Your task to perform on an android device: turn off location Image 0: 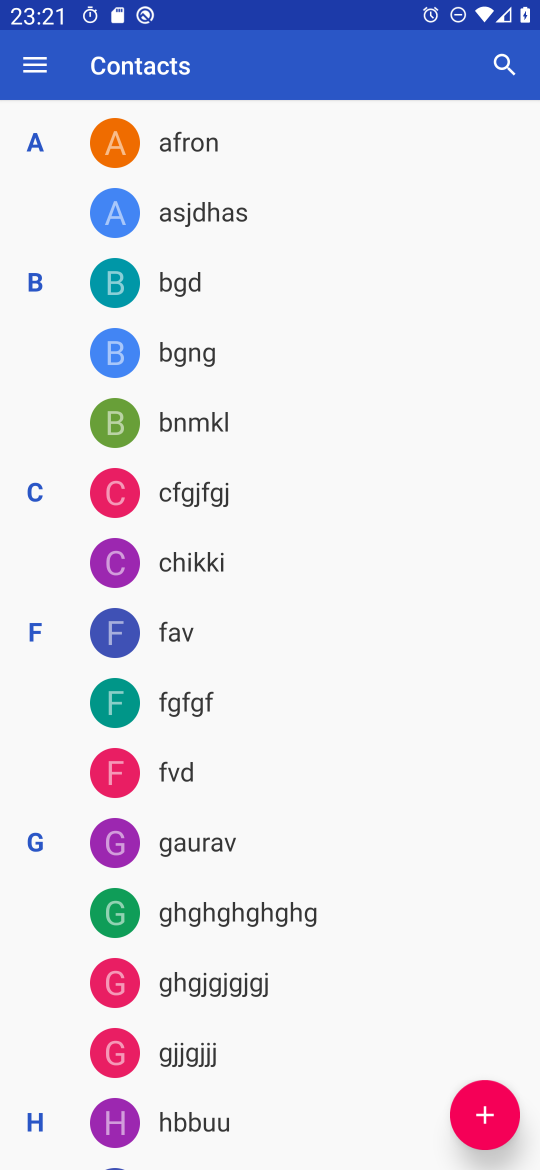
Step 0: press back button
Your task to perform on an android device: turn off location Image 1: 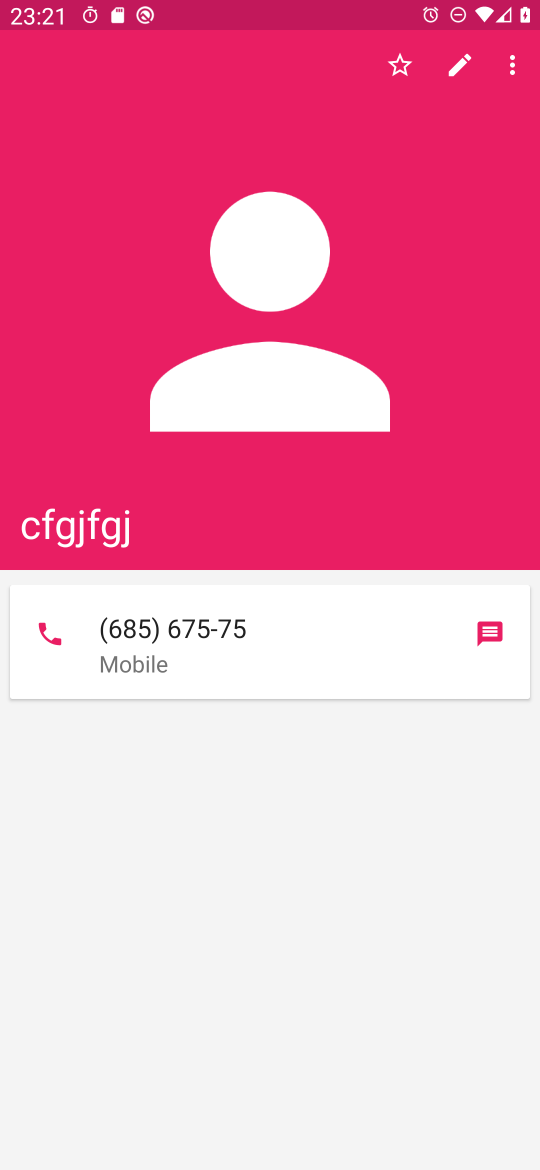
Step 1: press home button
Your task to perform on an android device: turn off location Image 2: 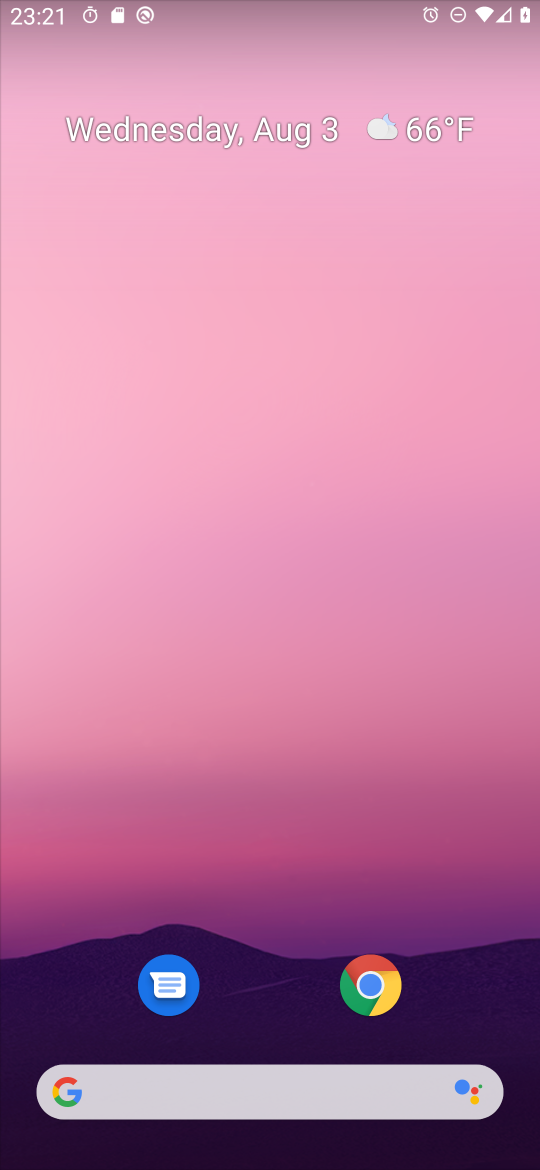
Step 2: drag from (275, 1029) to (301, 245)
Your task to perform on an android device: turn off location Image 3: 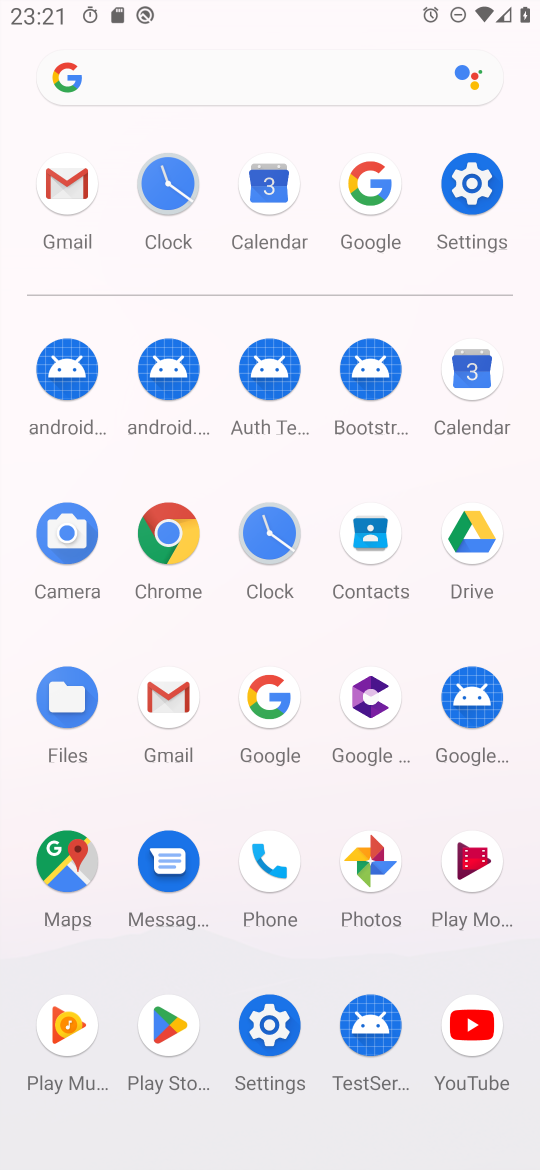
Step 3: click (480, 187)
Your task to perform on an android device: turn off location Image 4: 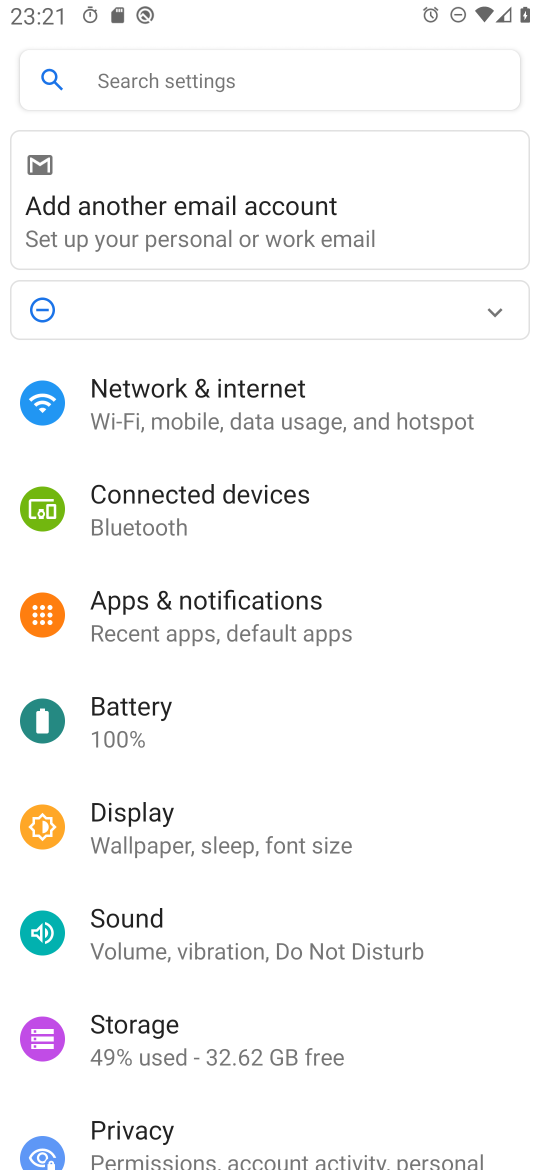
Step 4: drag from (248, 1096) to (271, 635)
Your task to perform on an android device: turn off location Image 5: 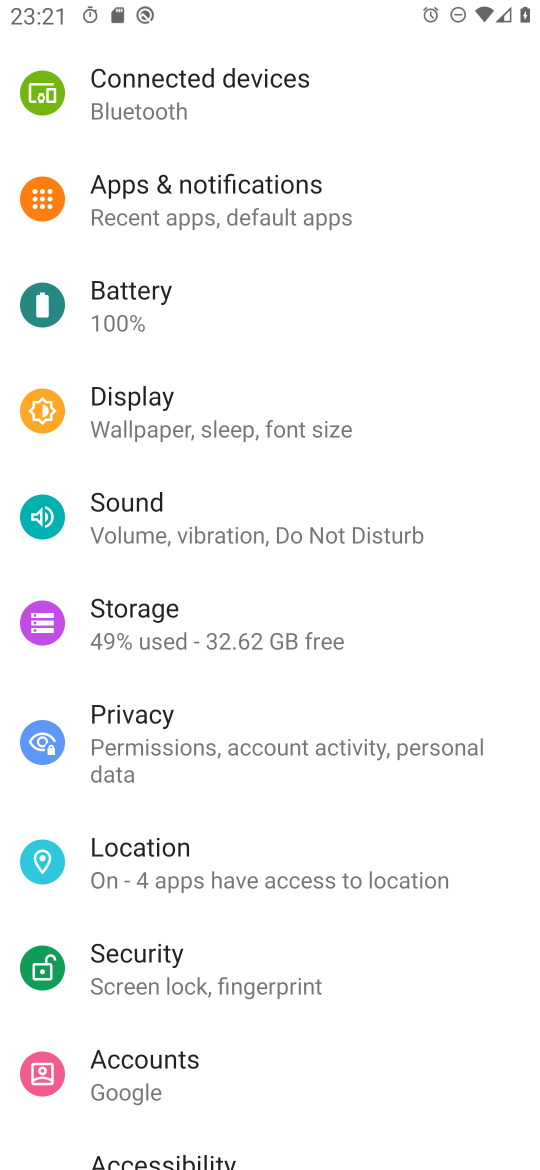
Step 5: click (162, 880)
Your task to perform on an android device: turn off location Image 6: 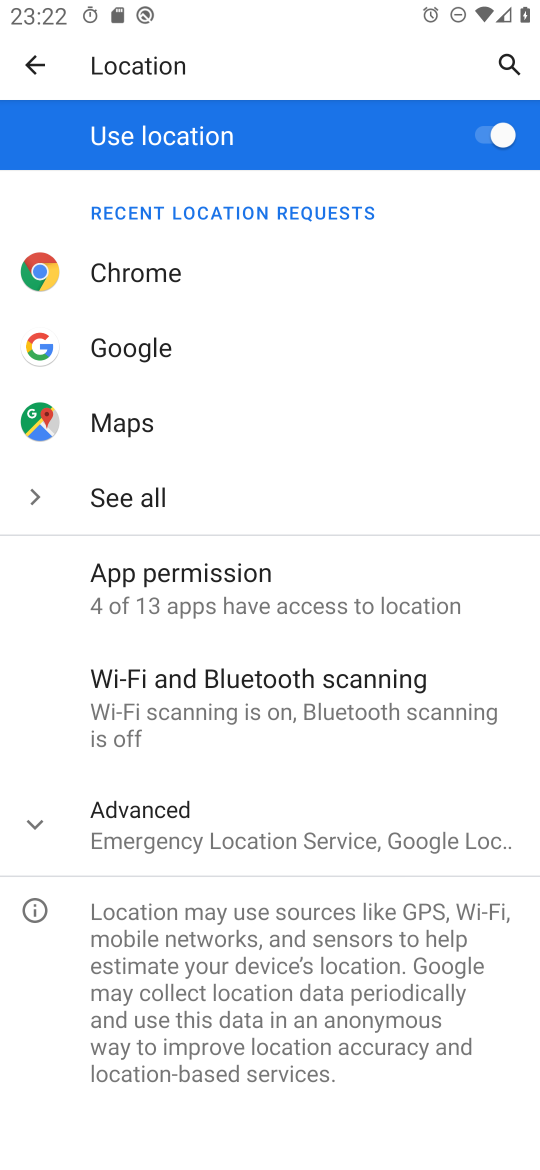
Step 6: click (491, 138)
Your task to perform on an android device: turn off location Image 7: 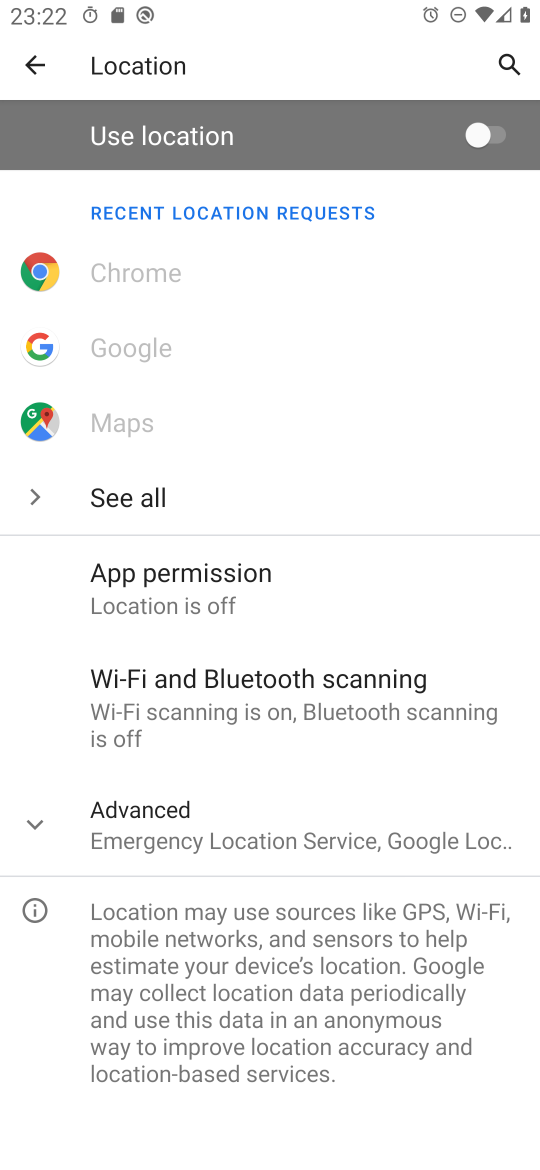
Step 7: task complete